Your task to perform on an android device: turn off notifications settings in the gmail app Image 0: 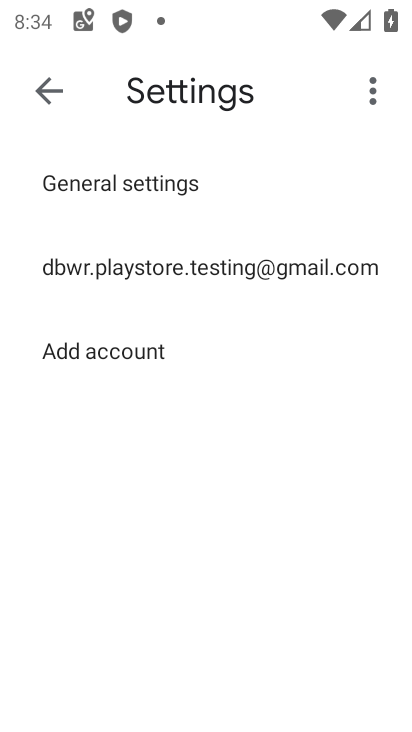
Step 0: click (205, 266)
Your task to perform on an android device: turn off notifications settings in the gmail app Image 1: 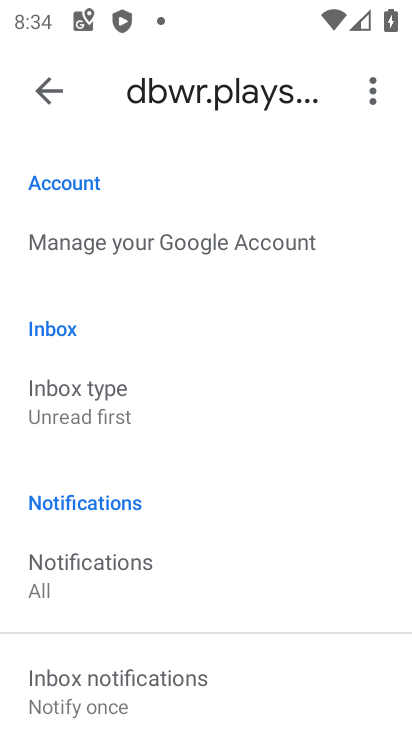
Step 1: click (109, 573)
Your task to perform on an android device: turn off notifications settings in the gmail app Image 2: 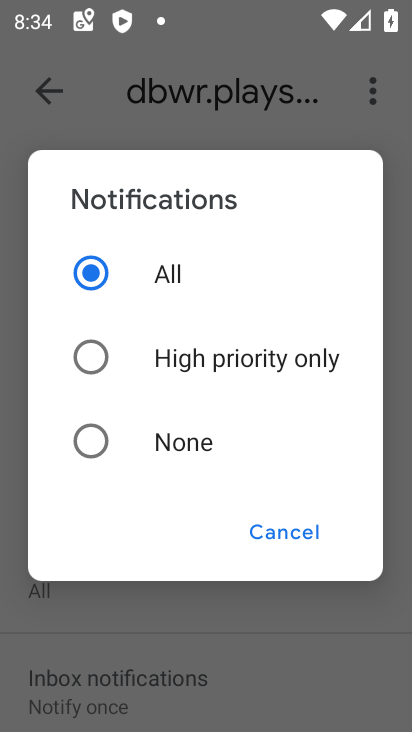
Step 2: click (164, 446)
Your task to perform on an android device: turn off notifications settings in the gmail app Image 3: 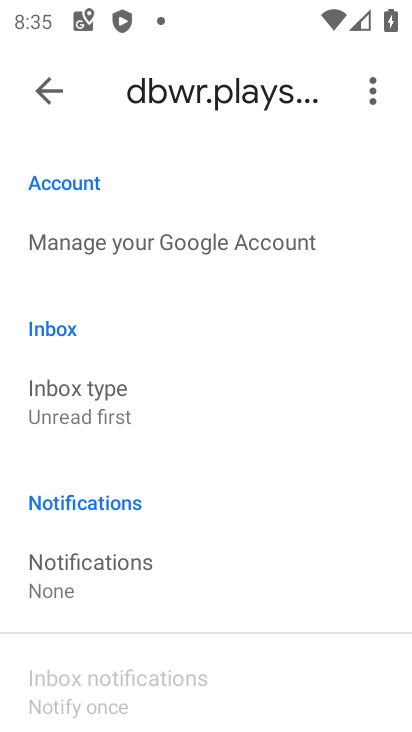
Step 3: task complete